Your task to perform on an android device: open app "Spotify" (install if not already installed) and go to login screen Image 0: 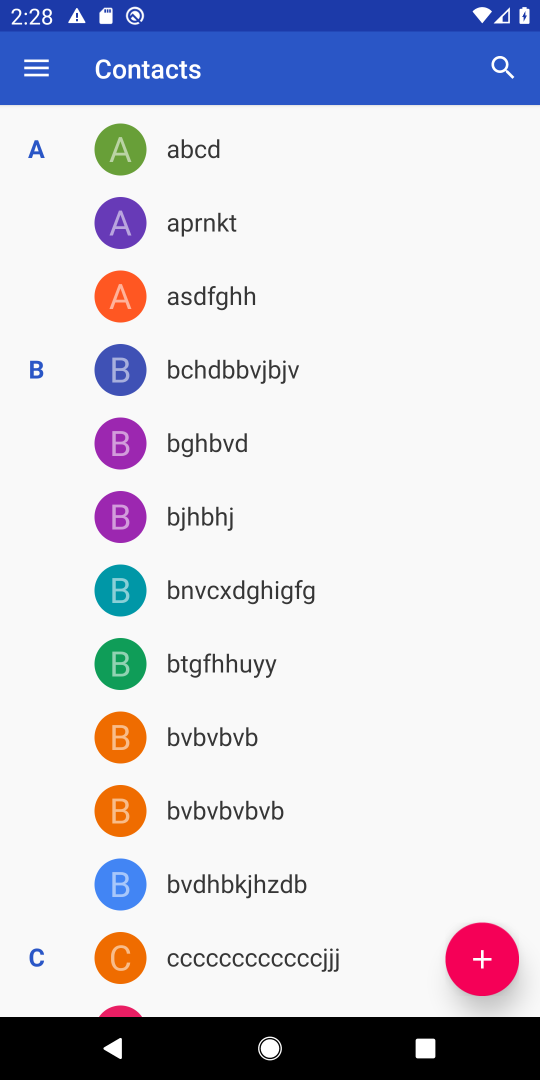
Step 0: press home button
Your task to perform on an android device: open app "Spotify" (install if not already installed) and go to login screen Image 1: 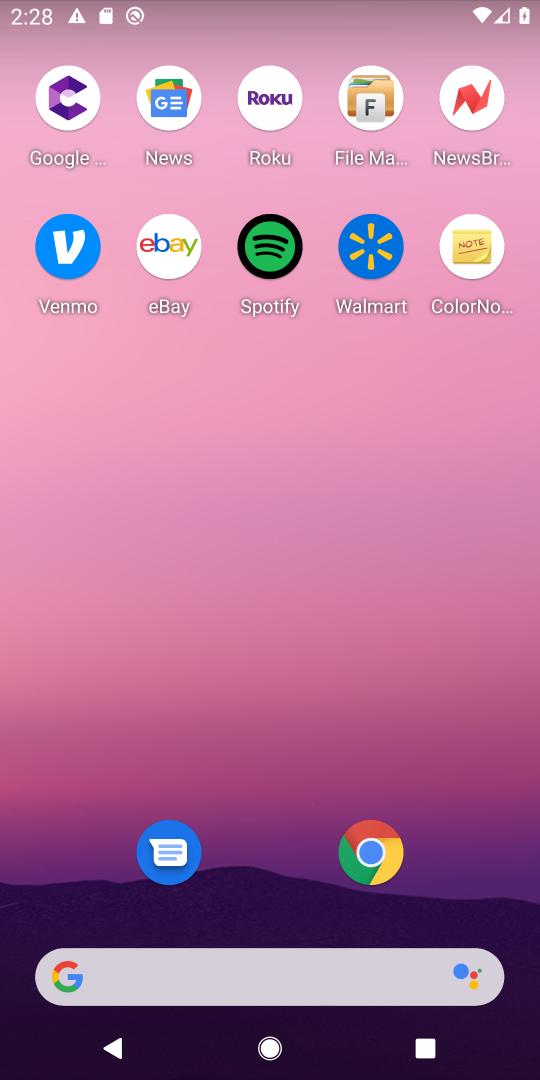
Step 1: drag from (254, 891) to (258, 83)
Your task to perform on an android device: open app "Spotify" (install if not already installed) and go to login screen Image 2: 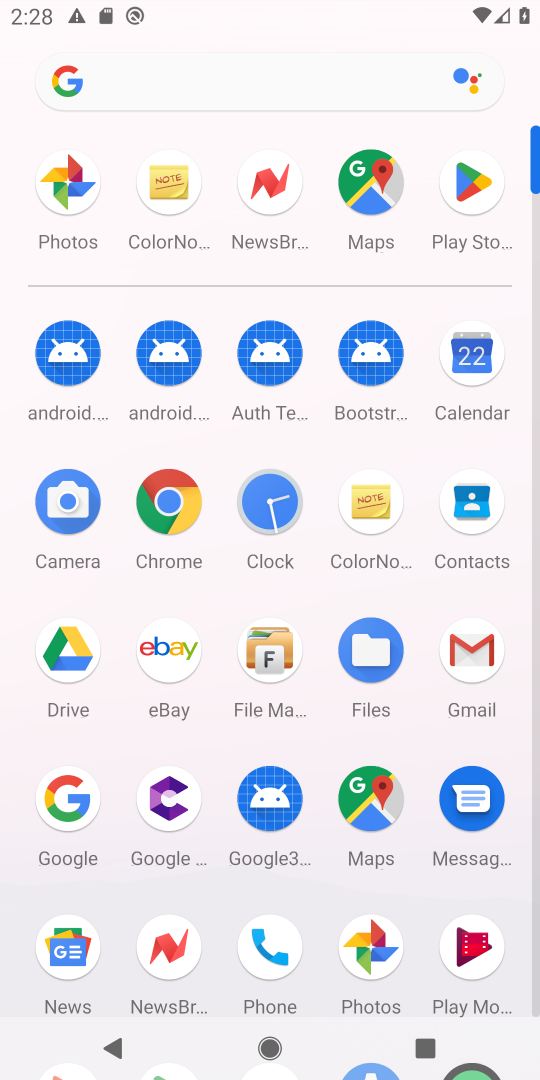
Step 2: click (470, 178)
Your task to perform on an android device: open app "Spotify" (install if not already installed) and go to login screen Image 3: 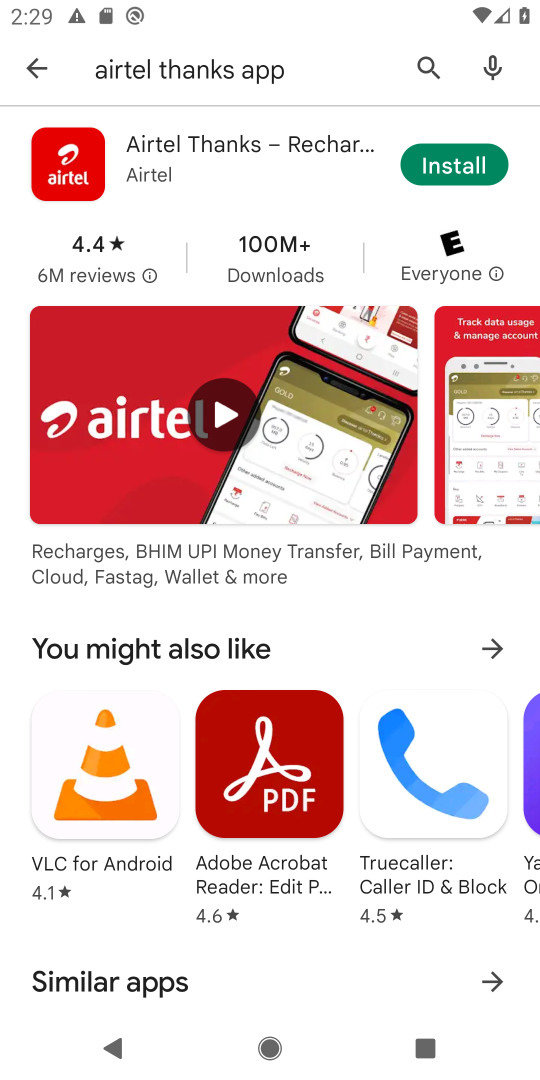
Step 3: click (425, 59)
Your task to perform on an android device: open app "Spotify" (install if not already installed) and go to login screen Image 4: 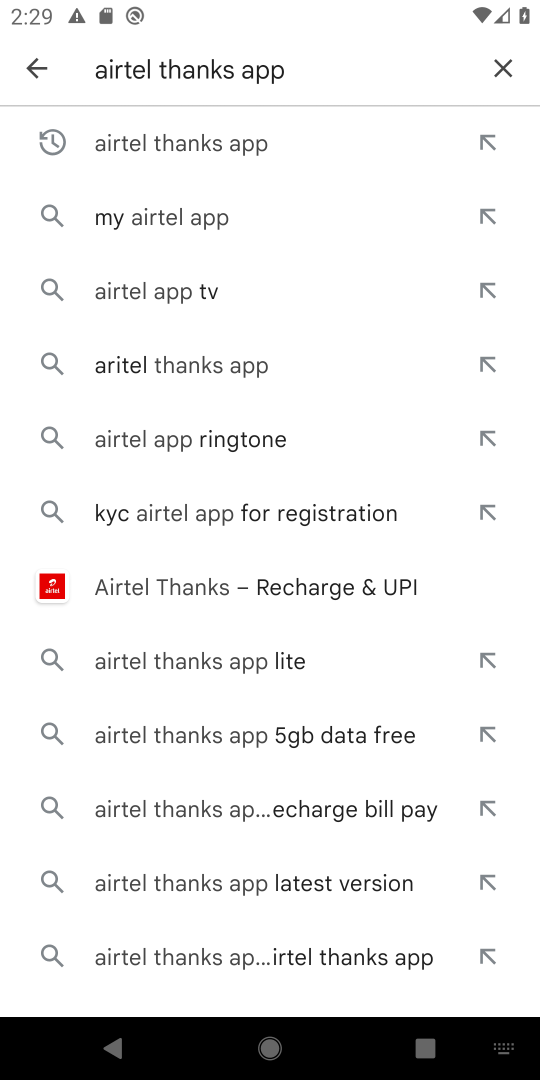
Step 4: click (497, 64)
Your task to perform on an android device: open app "Spotify" (install if not already installed) and go to login screen Image 5: 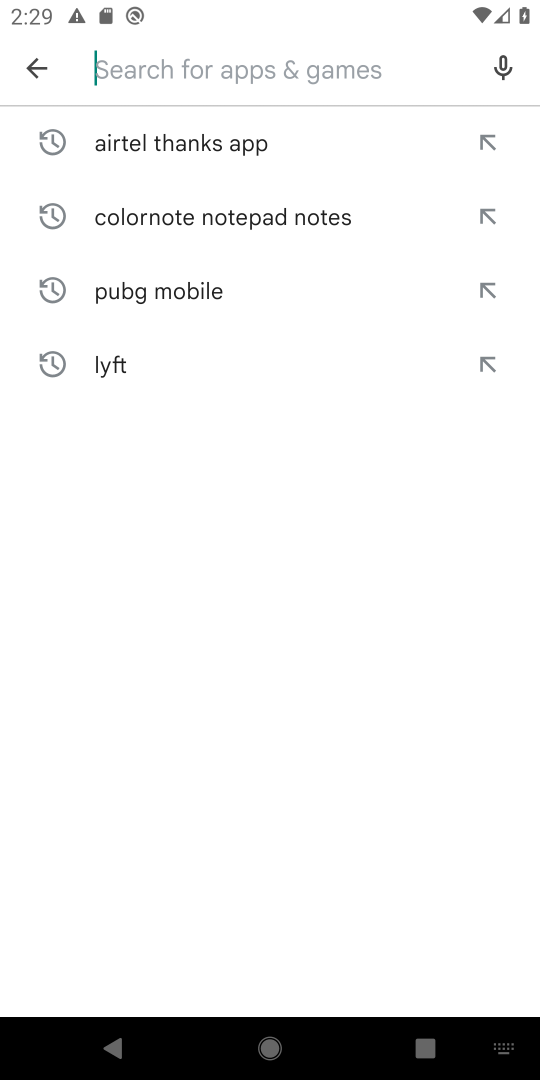
Step 5: type "Spotify"
Your task to perform on an android device: open app "Spotify" (install if not already installed) and go to login screen Image 6: 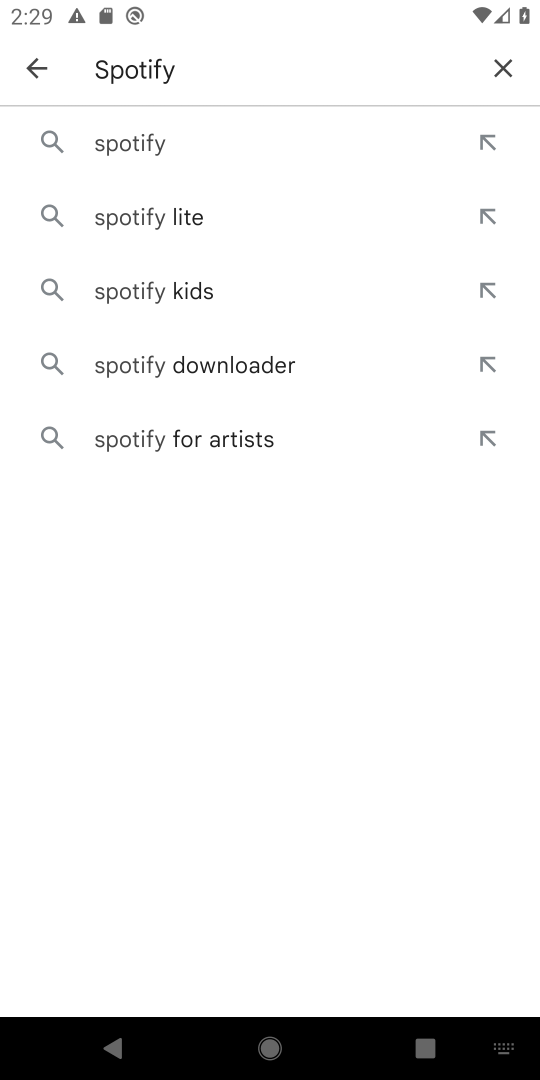
Step 6: click (129, 140)
Your task to perform on an android device: open app "Spotify" (install if not already installed) and go to login screen Image 7: 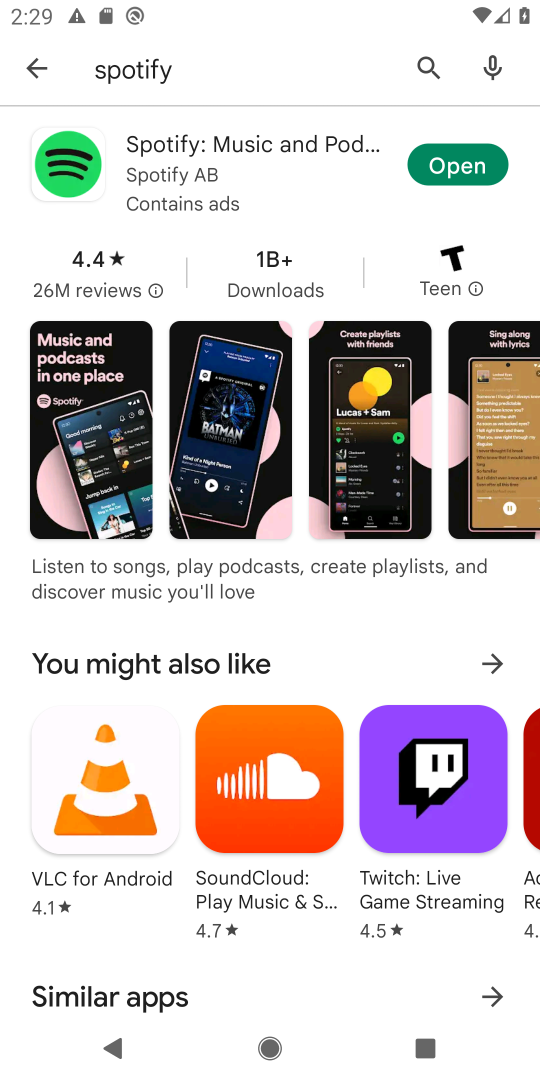
Step 7: click (457, 159)
Your task to perform on an android device: open app "Spotify" (install if not already installed) and go to login screen Image 8: 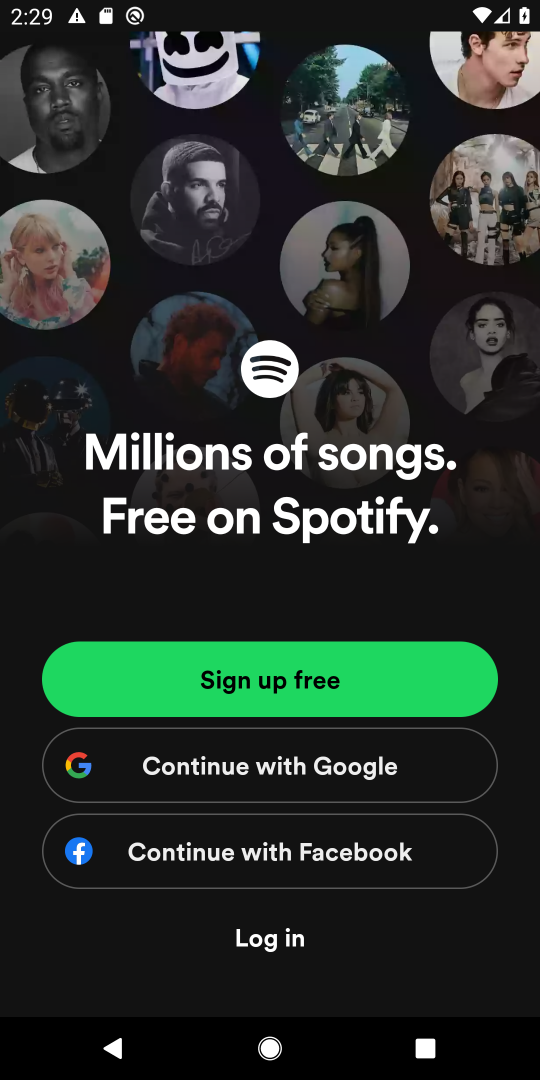
Step 8: task complete